Your task to perform on an android device: Open calendar and show me the fourth week of next month Image 0: 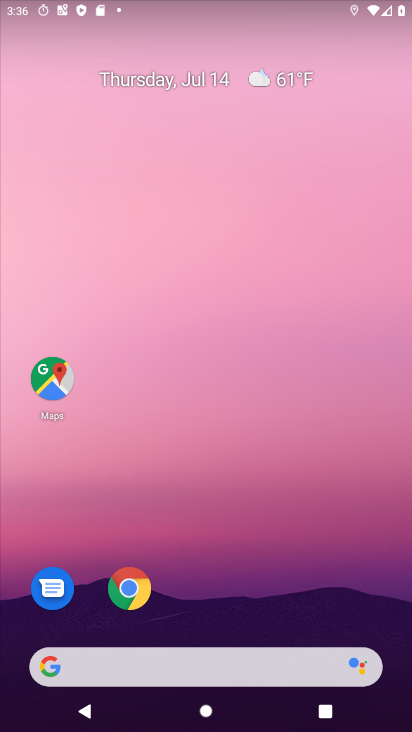
Step 0: drag from (223, 673) to (267, 221)
Your task to perform on an android device: Open calendar and show me the fourth week of next month Image 1: 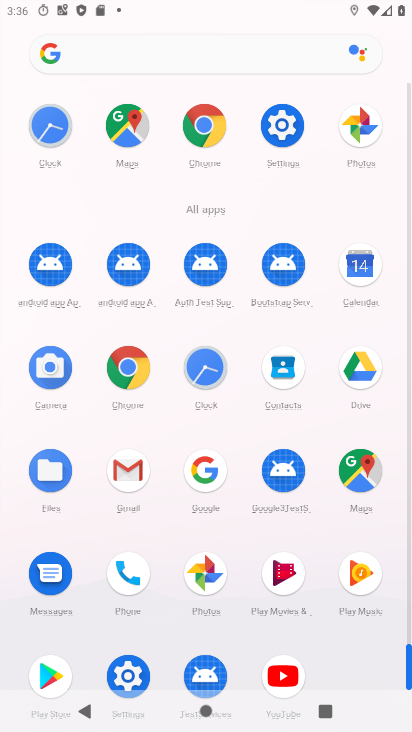
Step 1: click (361, 265)
Your task to perform on an android device: Open calendar and show me the fourth week of next month Image 2: 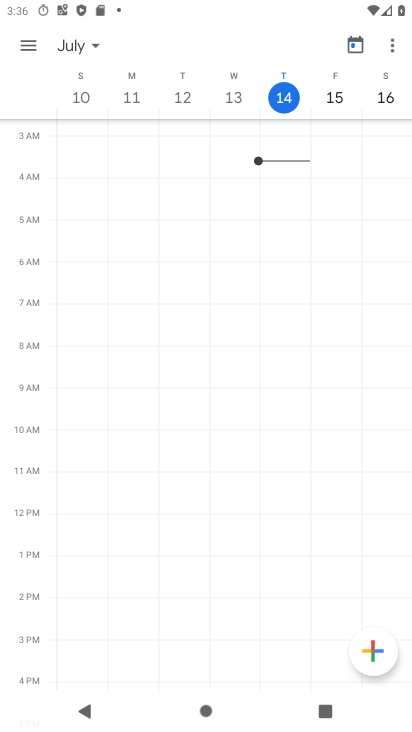
Step 2: click (96, 46)
Your task to perform on an android device: Open calendar and show me the fourth week of next month Image 3: 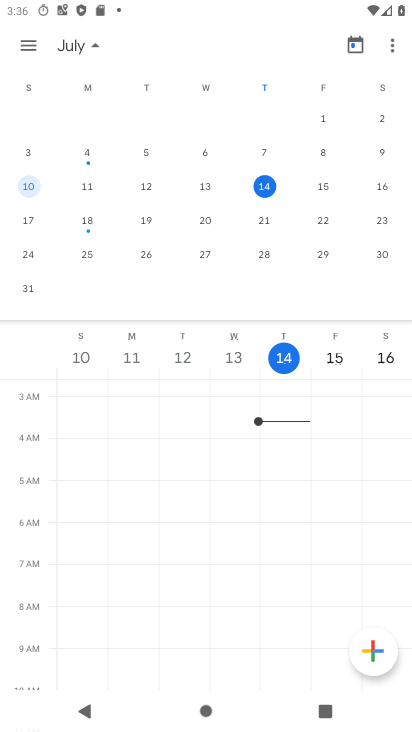
Step 3: drag from (375, 234) to (1, 222)
Your task to perform on an android device: Open calendar and show me the fourth week of next month Image 4: 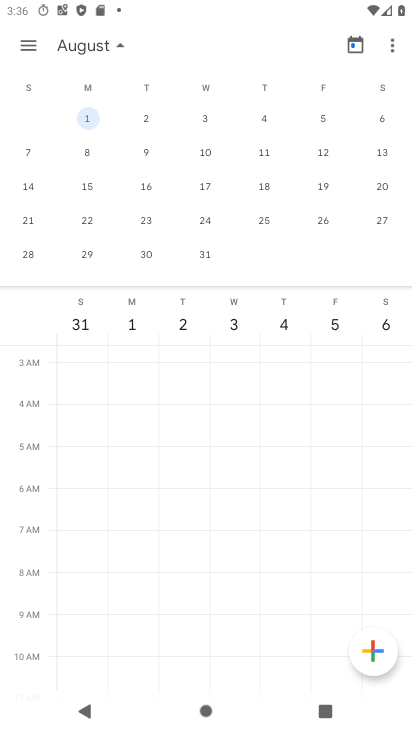
Step 4: click (90, 222)
Your task to perform on an android device: Open calendar and show me the fourth week of next month Image 5: 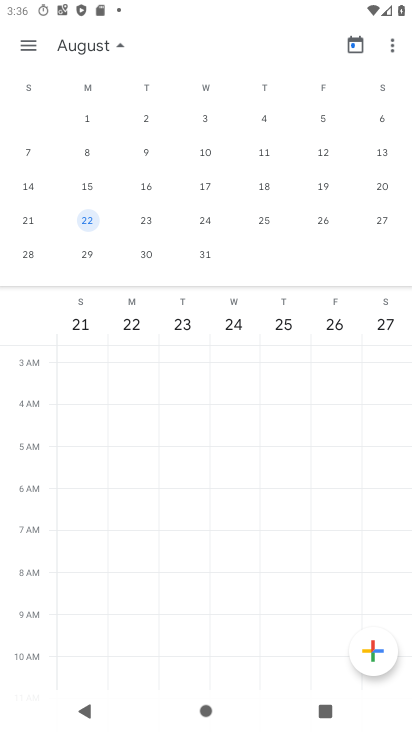
Step 5: click (21, 46)
Your task to perform on an android device: Open calendar and show me the fourth week of next month Image 6: 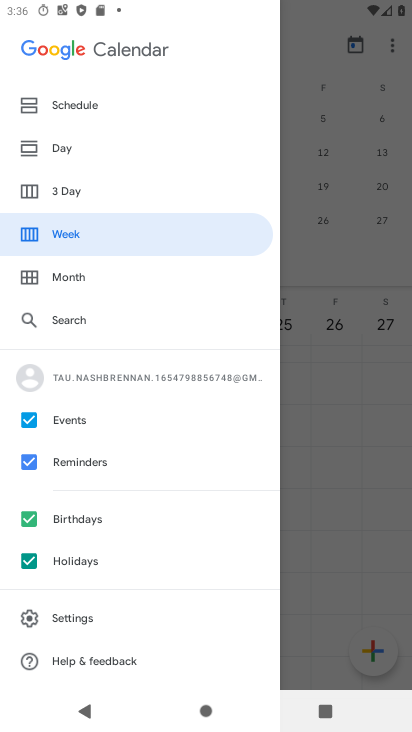
Step 6: click (73, 231)
Your task to perform on an android device: Open calendar and show me the fourth week of next month Image 7: 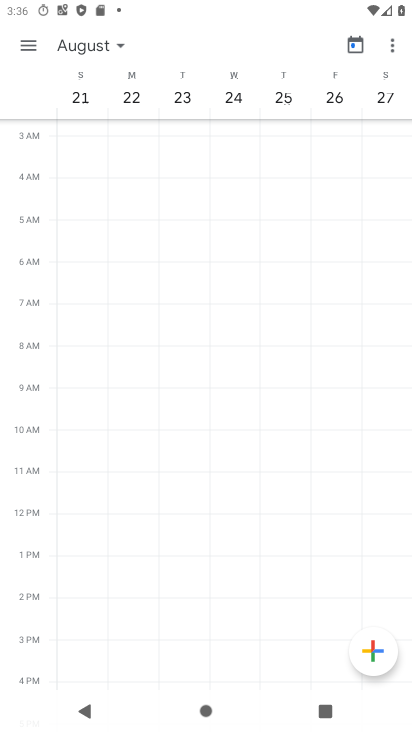
Step 7: task complete